Your task to perform on an android device: open chrome and create a bookmark for the current page Image 0: 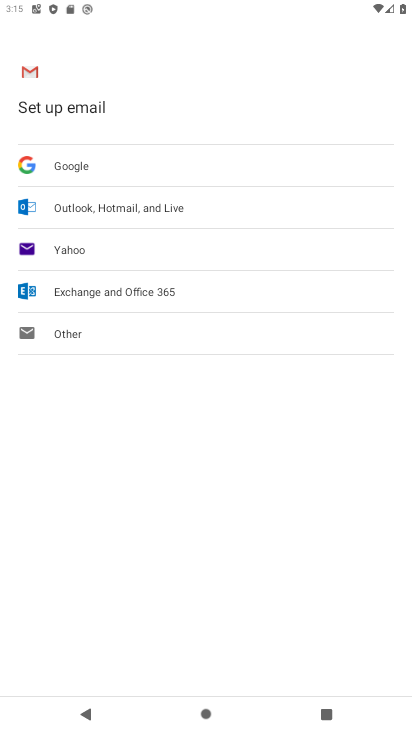
Step 0: press home button
Your task to perform on an android device: open chrome and create a bookmark for the current page Image 1: 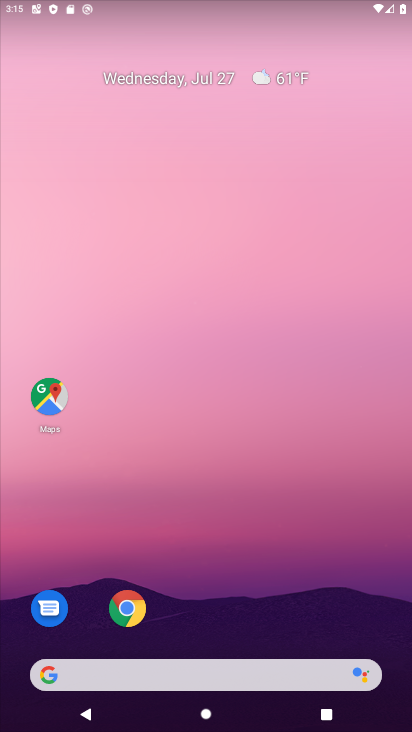
Step 1: click (124, 615)
Your task to perform on an android device: open chrome and create a bookmark for the current page Image 2: 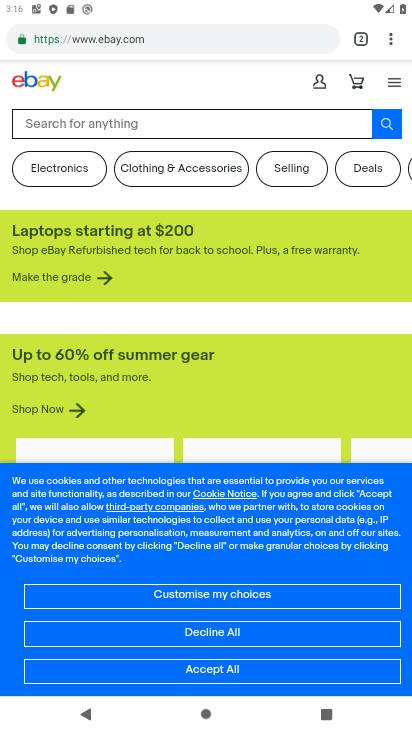
Step 2: click (391, 39)
Your task to perform on an android device: open chrome and create a bookmark for the current page Image 3: 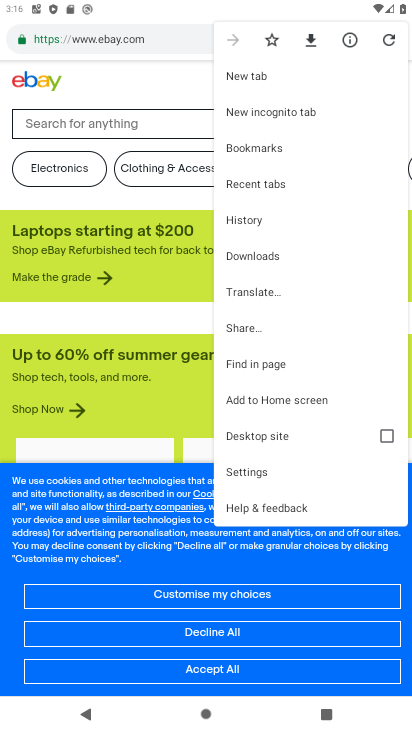
Step 3: click (274, 38)
Your task to perform on an android device: open chrome and create a bookmark for the current page Image 4: 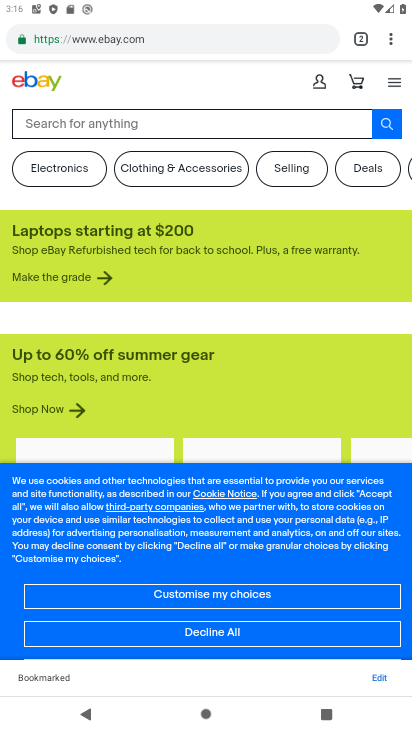
Step 4: task complete